Your task to perform on an android device: Open Google Maps Image 0: 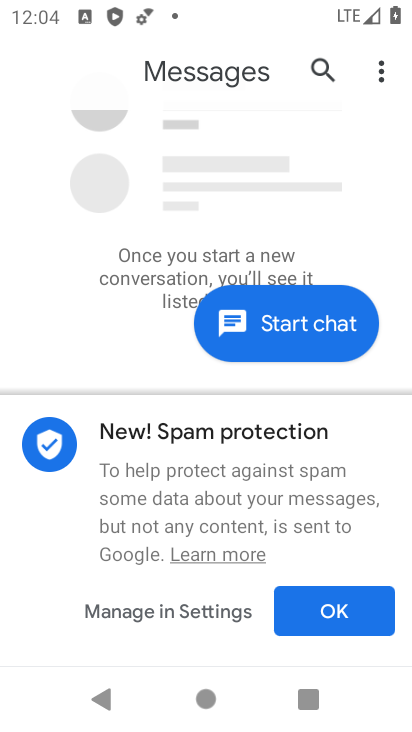
Step 0: press home button
Your task to perform on an android device: Open Google Maps Image 1: 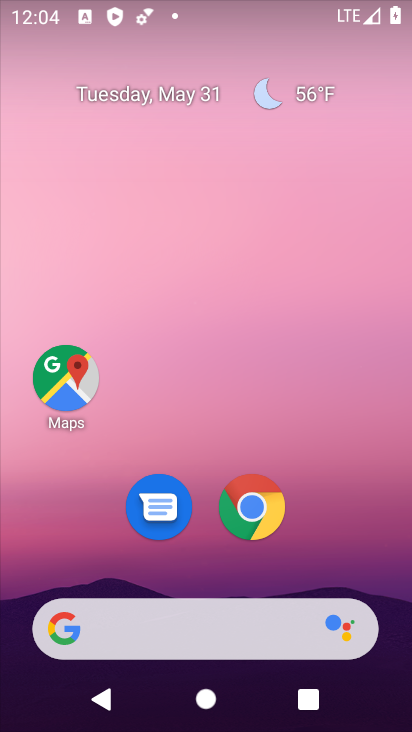
Step 1: drag from (402, 610) to (296, 27)
Your task to perform on an android device: Open Google Maps Image 2: 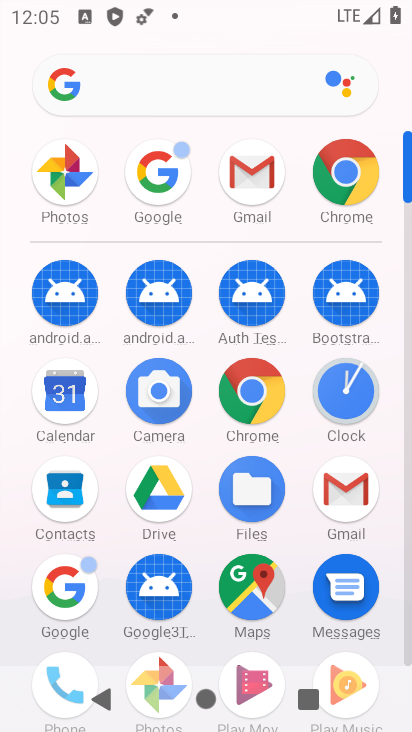
Step 2: click (243, 575)
Your task to perform on an android device: Open Google Maps Image 3: 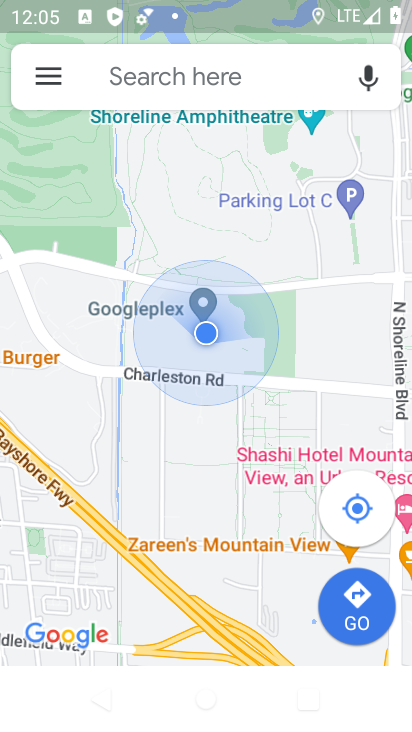
Step 3: task complete